Your task to perform on an android device: turn off priority inbox in the gmail app Image 0: 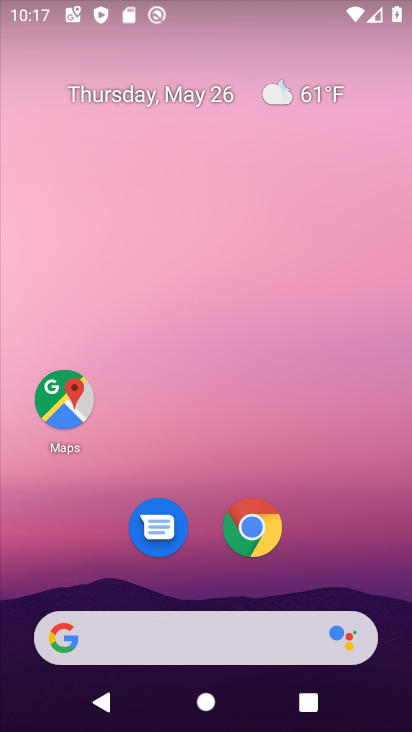
Step 0: drag from (211, 588) to (207, 51)
Your task to perform on an android device: turn off priority inbox in the gmail app Image 1: 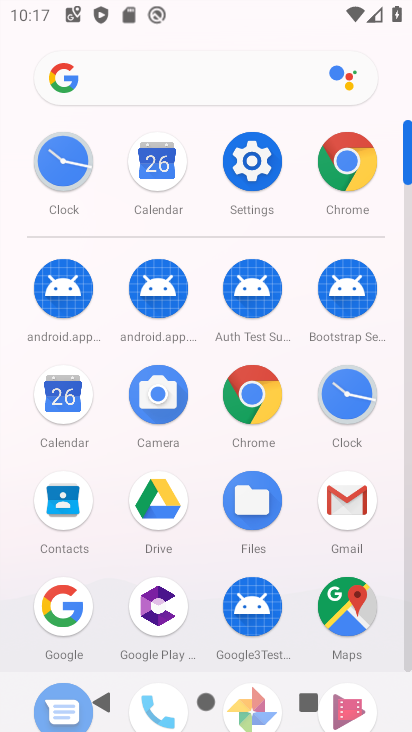
Step 1: click (338, 504)
Your task to perform on an android device: turn off priority inbox in the gmail app Image 2: 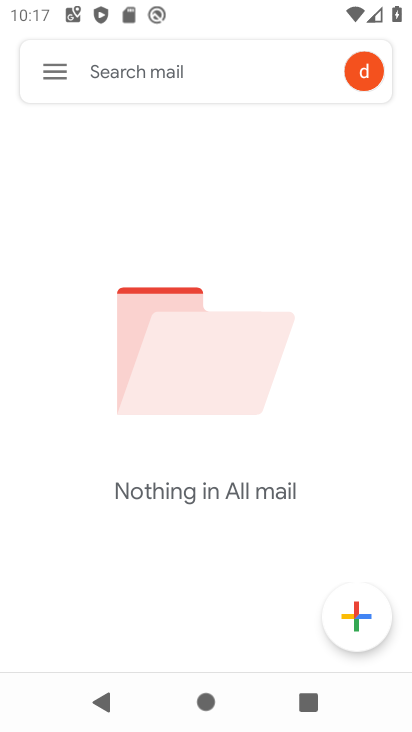
Step 2: click (43, 80)
Your task to perform on an android device: turn off priority inbox in the gmail app Image 3: 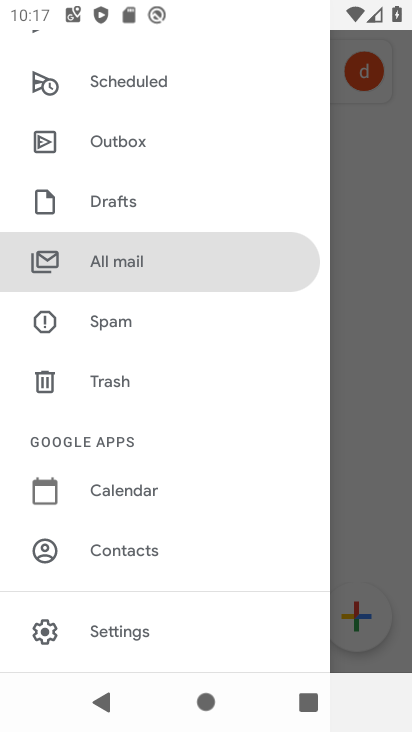
Step 3: click (100, 635)
Your task to perform on an android device: turn off priority inbox in the gmail app Image 4: 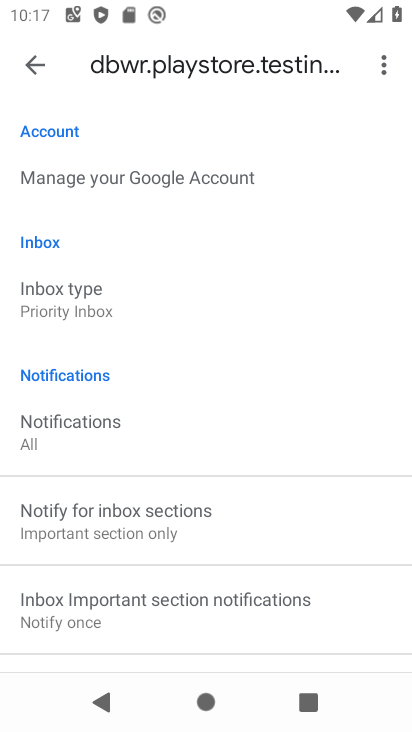
Step 4: click (85, 301)
Your task to perform on an android device: turn off priority inbox in the gmail app Image 5: 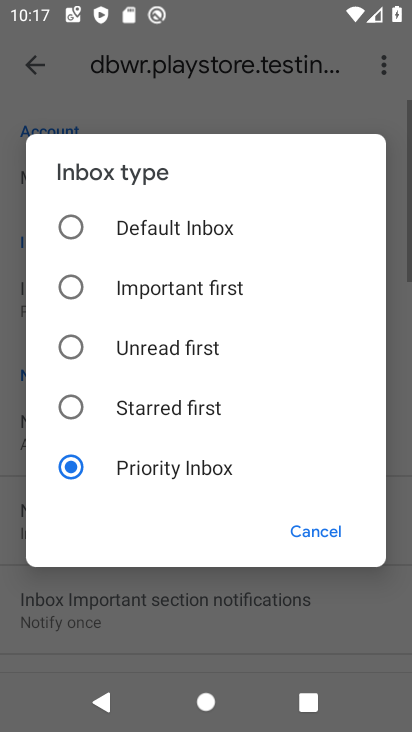
Step 5: click (59, 223)
Your task to perform on an android device: turn off priority inbox in the gmail app Image 6: 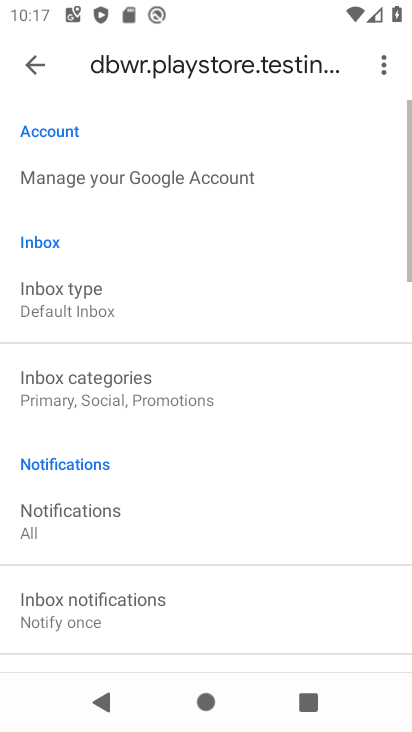
Step 6: task complete